Your task to perform on an android device: Is it going to rain this weekend? Image 0: 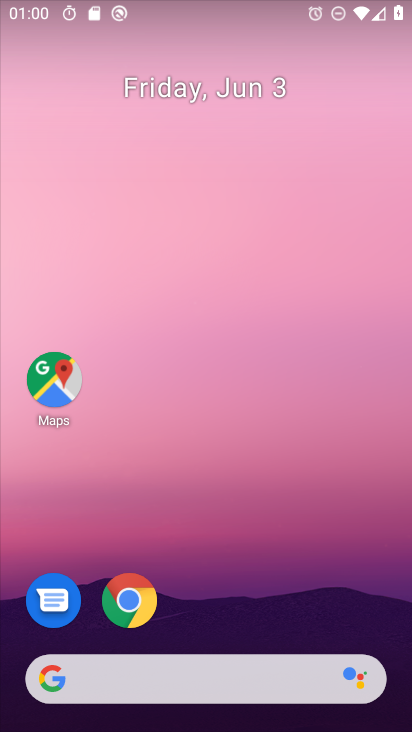
Step 0: drag from (222, 603) to (242, 159)
Your task to perform on an android device: Is it going to rain this weekend? Image 1: 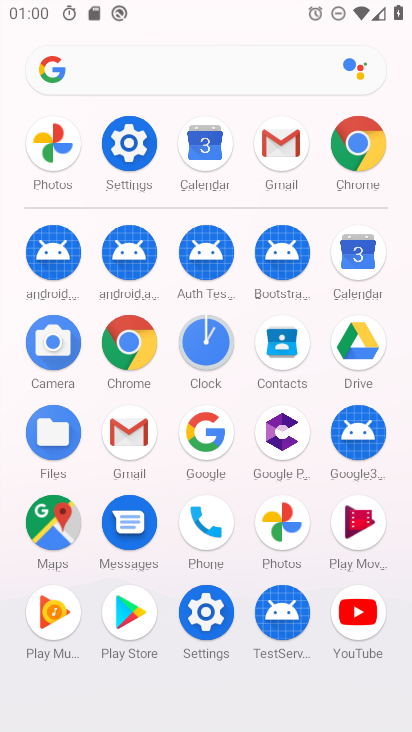
Step 1: click (208, 433)
Your task to perform on an android device: Is it going to rain this weekend? Image 2: 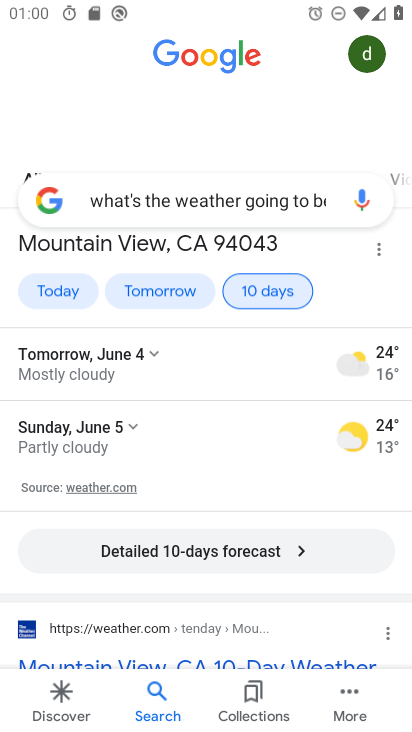
Step 2: click (261, 203)
Your task to perform on an android device: Is it going to rain this weekend? Image 3: 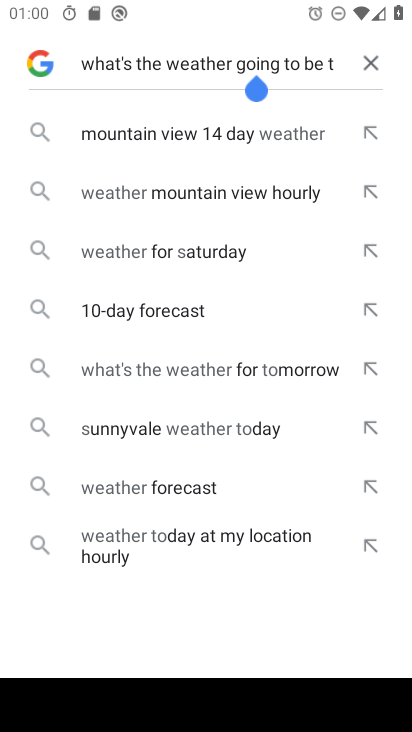
Step 3: click (365, 62)
Your task to perform on an android device: Is it going to rain this weekend? Image 4: 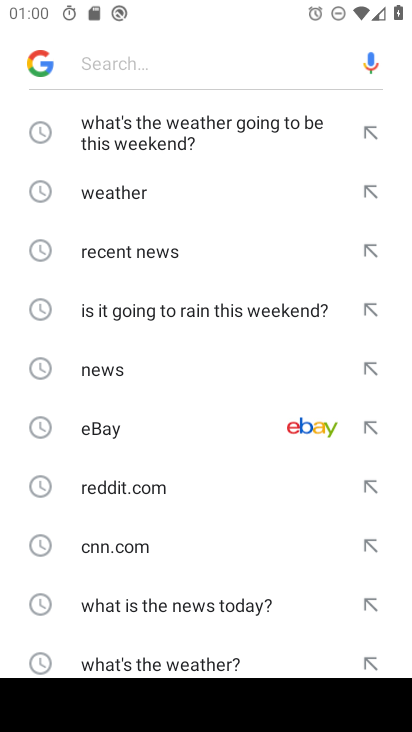
Step 4: click (175, 308)
Your task to perform on an android device: Is it going to rain this weekend? Image 5: 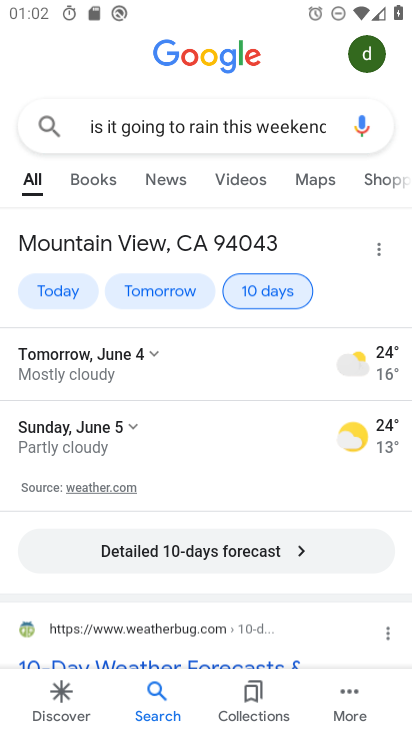
Step 5: task complete